Your task to perform on an android device: Turn on the flashlight Image 0: 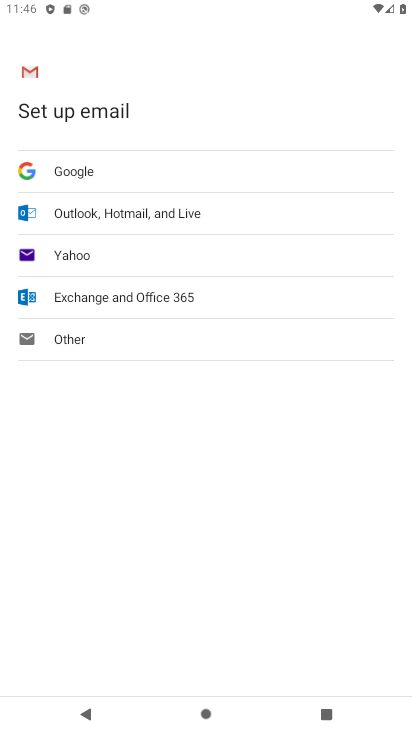
Step 0: press home button
Your task to perform on an android device: Turn on the flashlight Image 1: 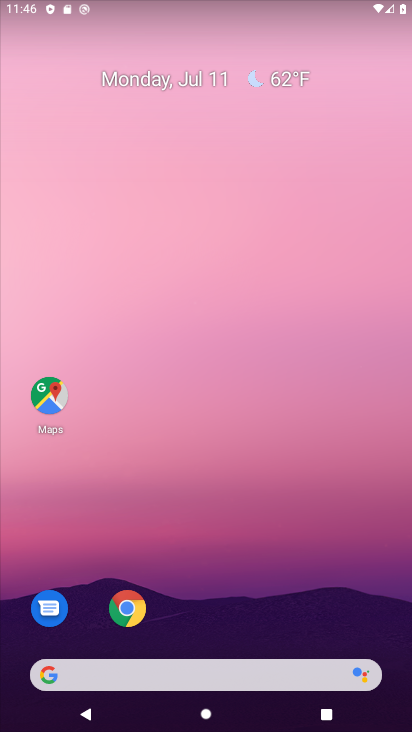
Step 1: click (356, 17)
Your task to perform on an android device: Turn on the flashlight Image 2: 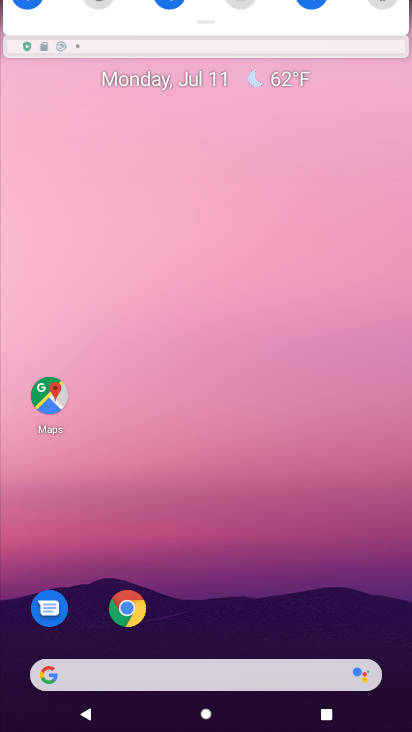
Step 2: drag from (281, 436) to (236, 105)
Your task to perform on an android device: Turn on the flashlight Image 3: 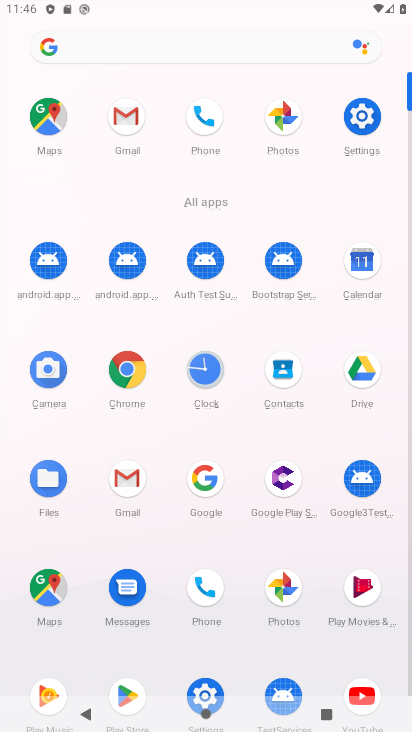
Step 3: click (368, 118)
Your task to perform on an android device: Turn on the flashlight Image 4: 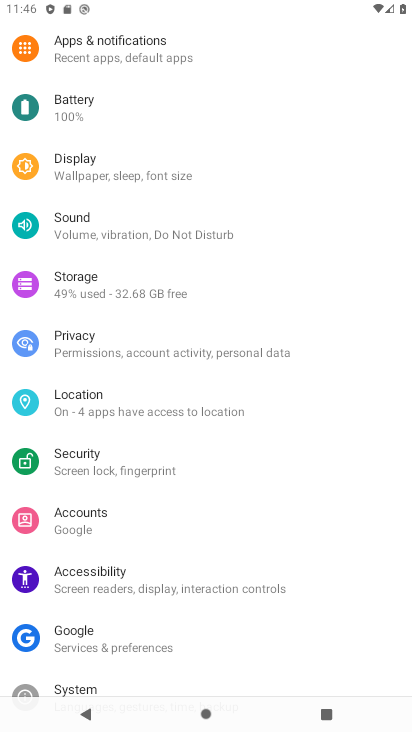
Step 4: task complete